Your task to perform on an android device: turn on improve location accuracy Image 0: 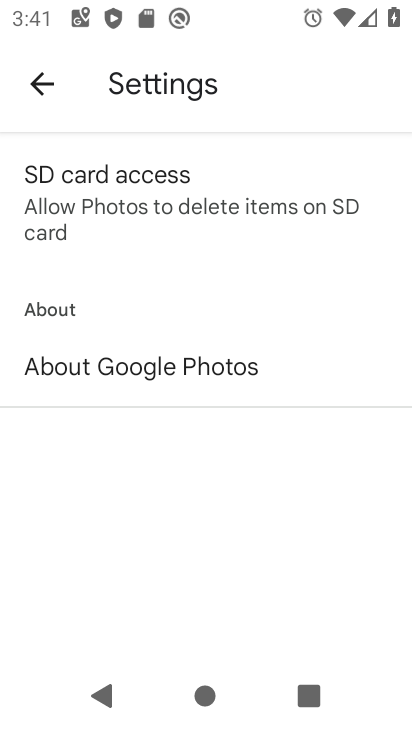
Step 0: drag from (375, 565) to (381, 418)
Your task to perform on an android device: turn on improve location accuracy Image 1: 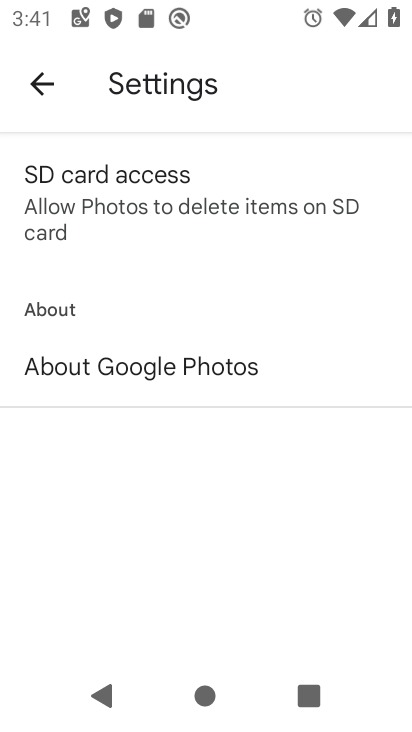
Step 1: press home button
Your task to perform on an android device: turn on improve location accuracy Image 2: 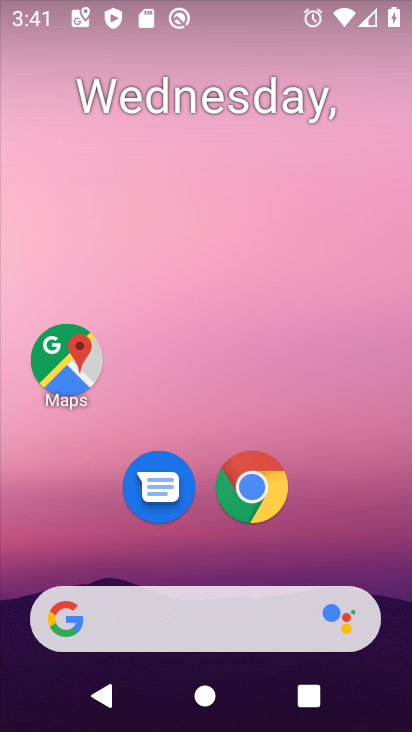
Step 2: drag from (352, 538) to (355, 281)
Your task to perform on an android device: turn on improve location accuracy Image 3: 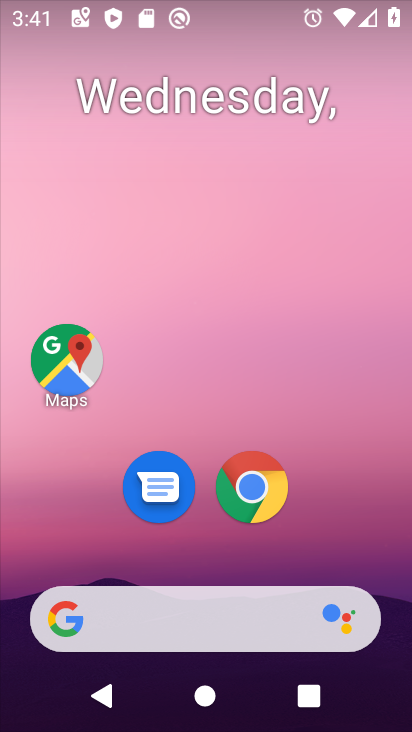
Step 3: drag from (341, 545) to (378, 180)
Your task to perform on an android device: turn on improve location accuracy Image 4: 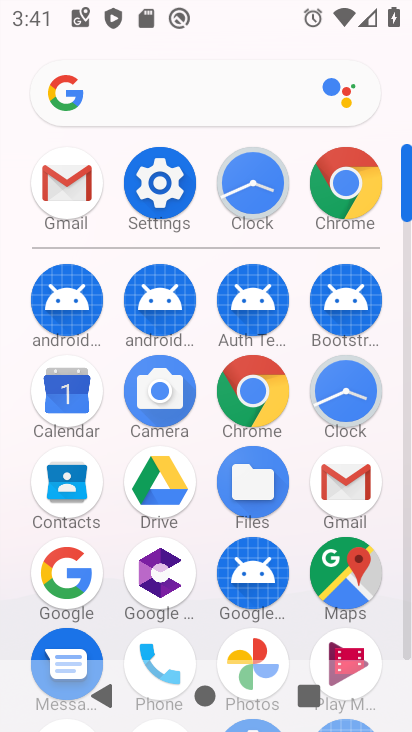
Step 4: click (167, 205)
Your task to perform on an android device: turn on improve location accuracy Image 5: 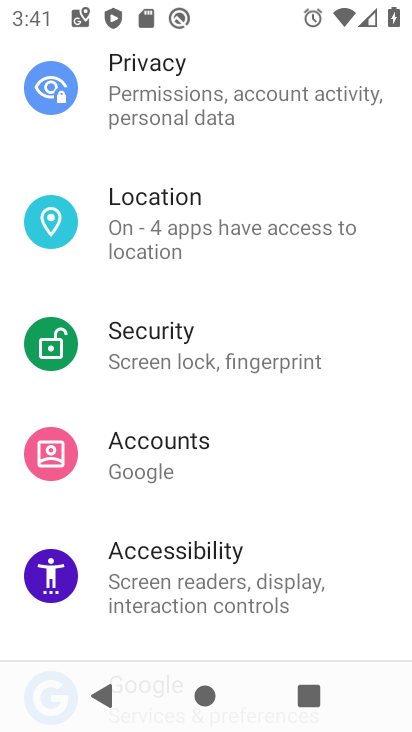
Step 5: drag from (352, 296) to (347, 377)
Your task to perform on an android device: turn on improve location accuracy Image 6: 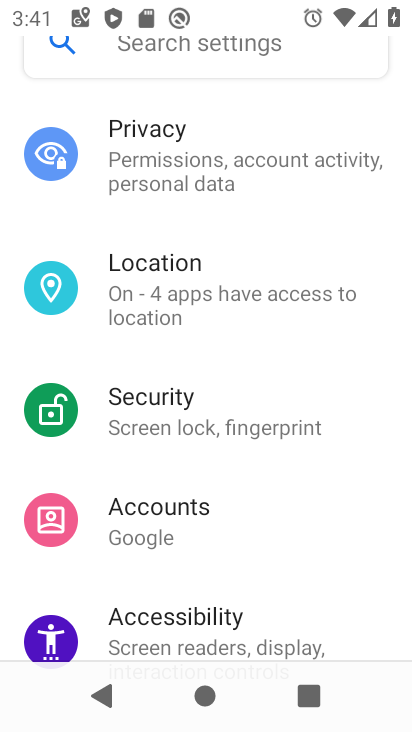
Step 6: drag from (358, 264) to (355, 395)
Your task to perform on an android device: turn on improve location accuracy Image 7: 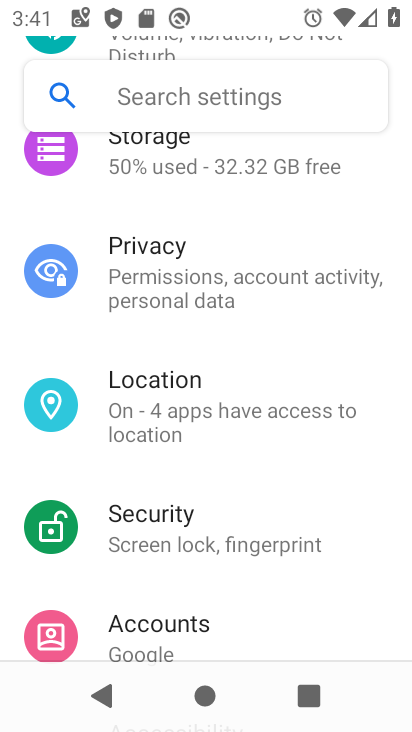
Step 7: drag from (357, 240) to (358, 362)
Your task to perform on an android device: turn on improve location accuracy Image 8: 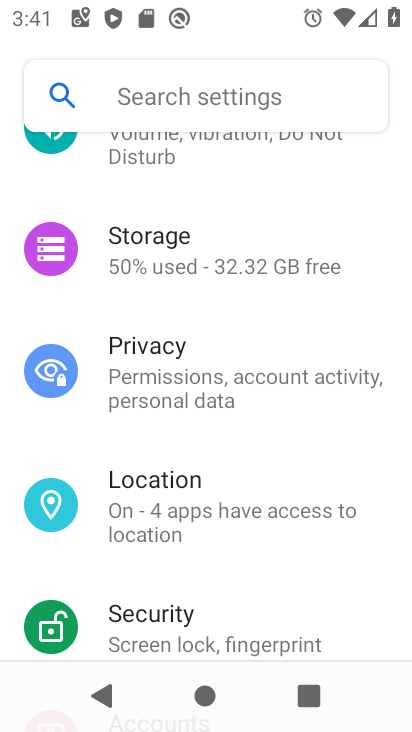
Step 8: drag from (355, 207) to (343, 357)
Your task to perform on an android device: turn on improve location accuracy Image 9: 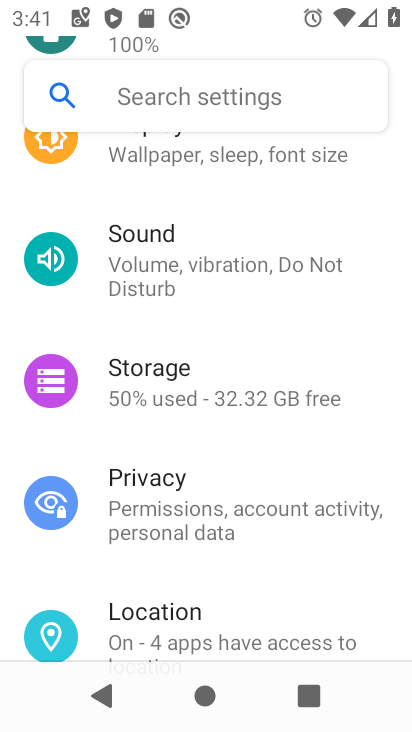
Step 9: drag from (302, 482) to (315, 310)
Your task to perform on an android device: turn on improve location accuracy Image 10: 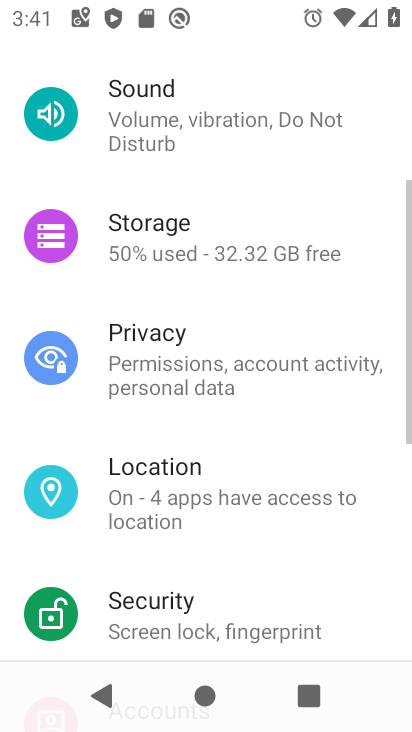
Step 10: drag from (296, 438) to (303, 349)
Your task to perform on an android device: turn on improve location accuracy Image 11: 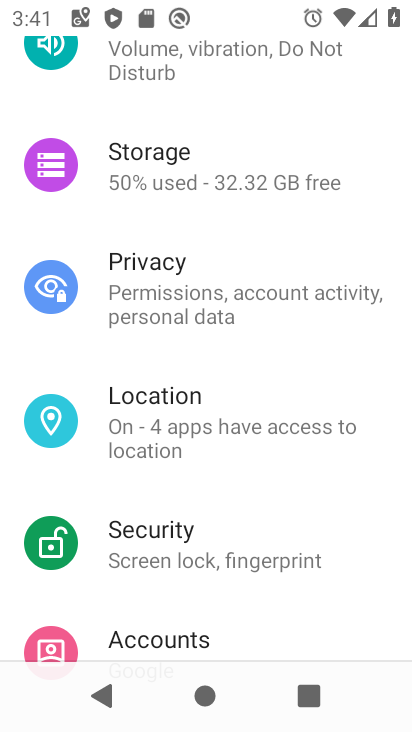
Step 11: click (283, 441)
Your task to perform on an android device: turn on improve location accuracy Image 12: 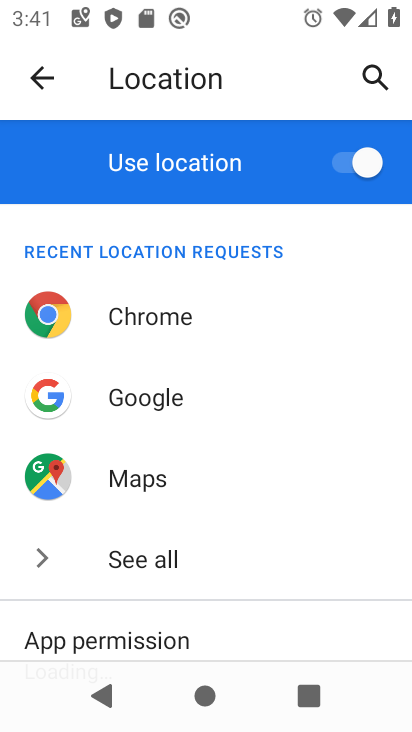
Step 12: drag from (301, 529) to (309, 367)
Your task to perform on an android device: turn on improve location accuracy Image 13: 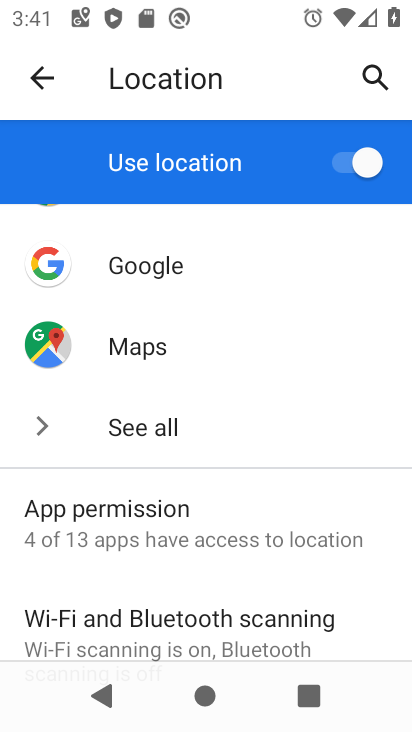
Step 13: drag from (286, 580) to (293, 426)
Your task to perform on an android device: turn on improve location accuracy Image 14: 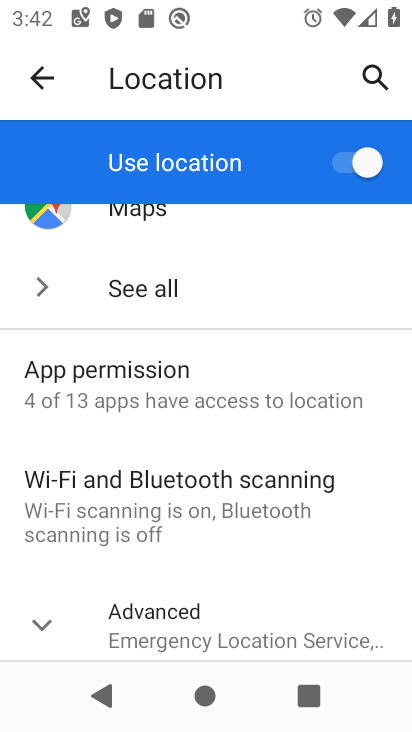
Step 14: drag from (294, 570) to (304, 428)
Your task to perform on an android device: turn on improve location accuracy Image 15: 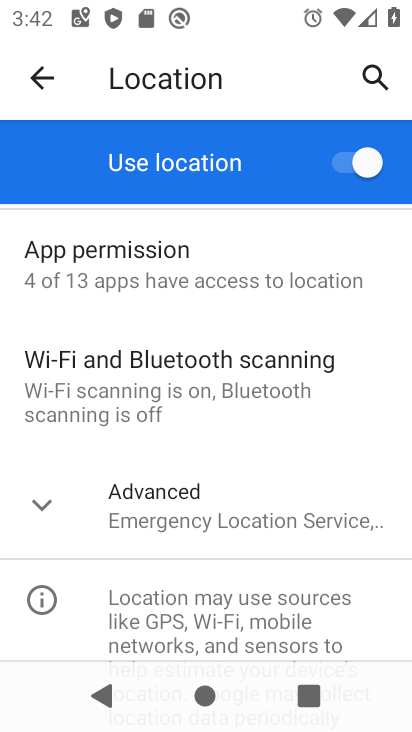
Step 15: click (223, 523)
Your task to perform on an android device: turn on improve location accuracy Image 16: 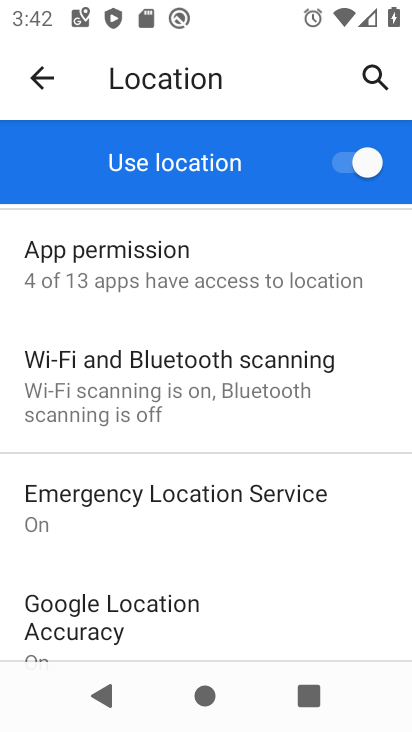
Step 16: drag from (256, 539) to (282, 406)
Your task to perform on an android device: turn on improve location accuracy Image 17: 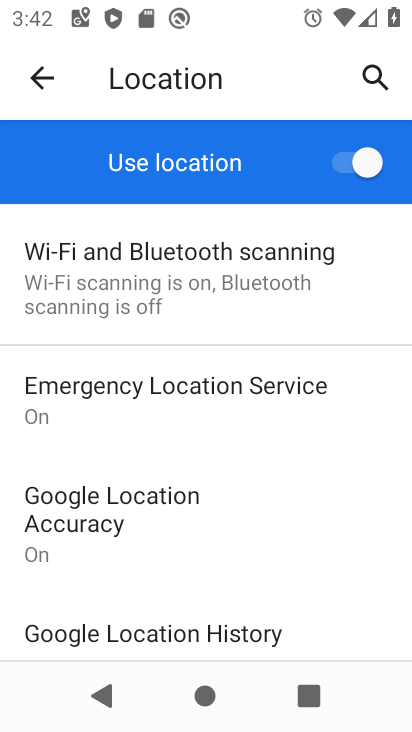
Step 17: drag from (264, 557) to (272, 395)
Your task to perform on an android device: turn on improve location accuracy Image 18: 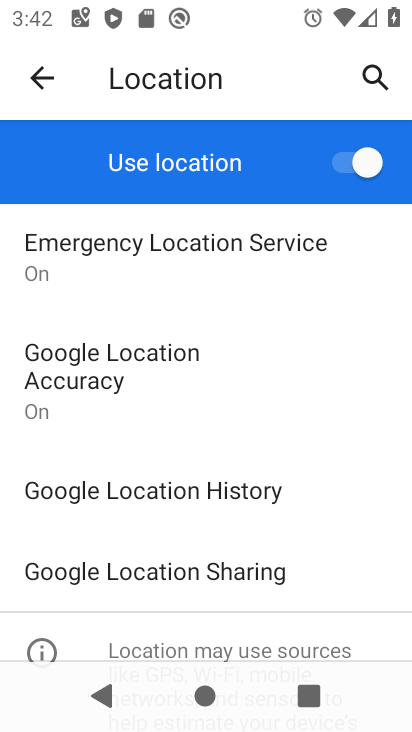
Step 18: drag from (331, 577) to (333, 468)
Your task to perform on an android device: turn on improve location accuracy Image 19: 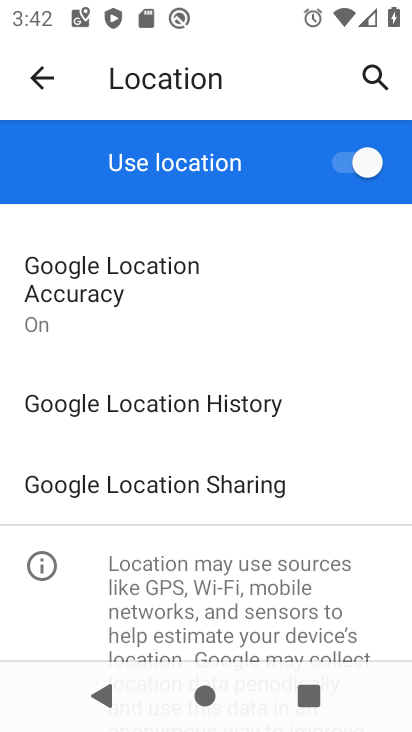
Step 19: click (167, 318)
Your task to perform on an android device: turn on improve location accuracy Image 20: 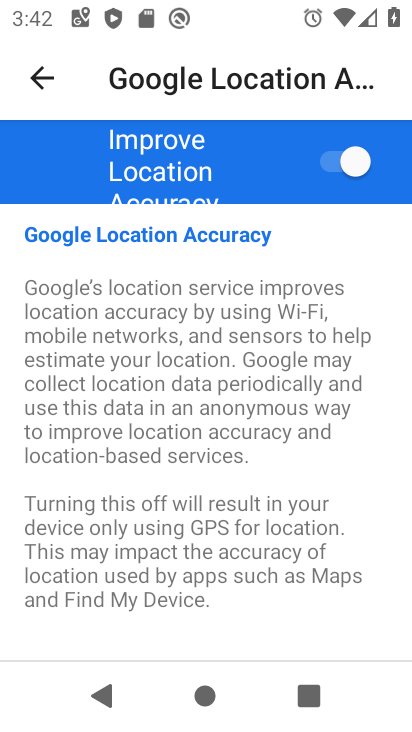
Step 20: task complete